Your task to perform on an android device: Open Google Chrome Image 0: 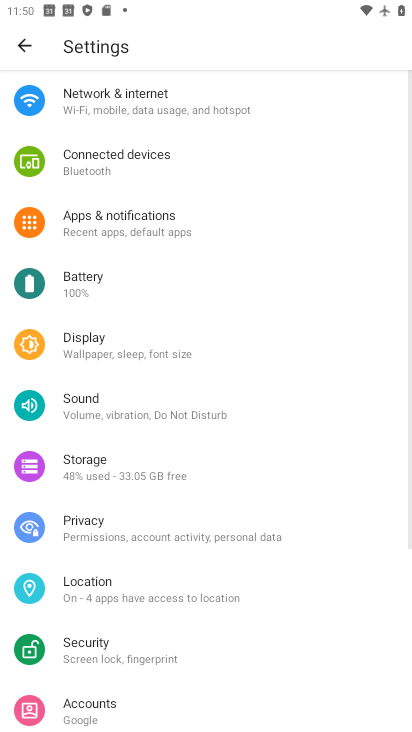
Step 0: press home button
Your task to perform on an android device: Open Google Chrome Image 1: 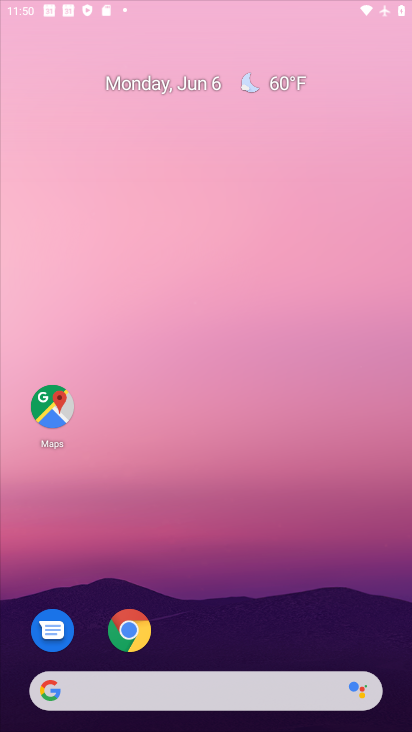
Step 1: drag from (387, 672) to (217, 92)
Your task to perform on an android device: Open Google Chrome Image 2: 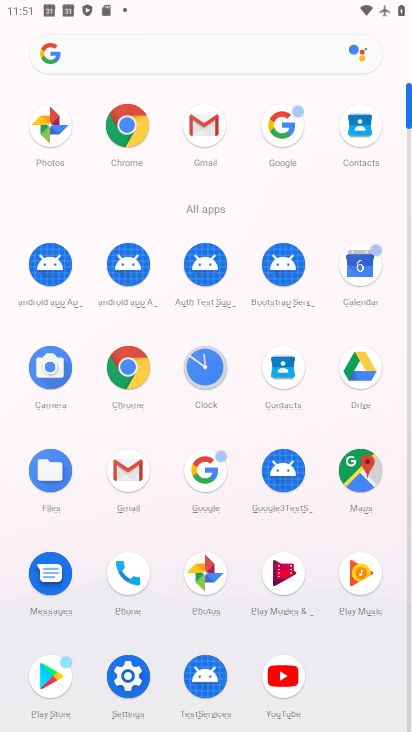
Step 2: click (127, 376)
Your task to perform on an android device: Open Google Chrome Image 3: 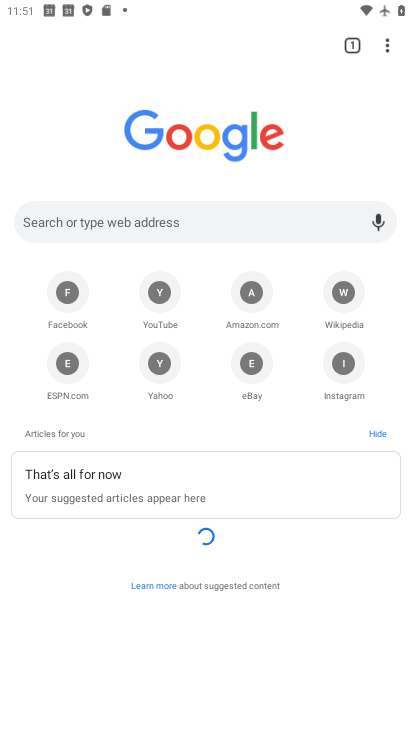
Step 3: task complete